Your task to perform on an android device: Add "macbook air" to the cart on ebay.com, then select checkout. Image 0: 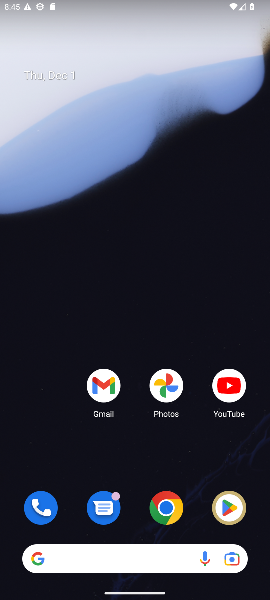
Step 0: click (162, 505)
Your task to perform on an android device: Add "macbook air" to the cart on ebay.com, then select checkout. Image 1: 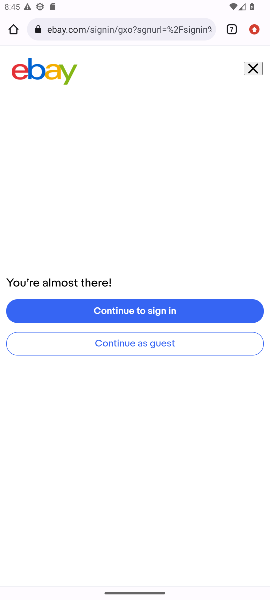
Step 1: click (251, 72)
Your task to perform on an android device: Add "macbook air" to the cart on ebay.com, then select checkout. Image 2: 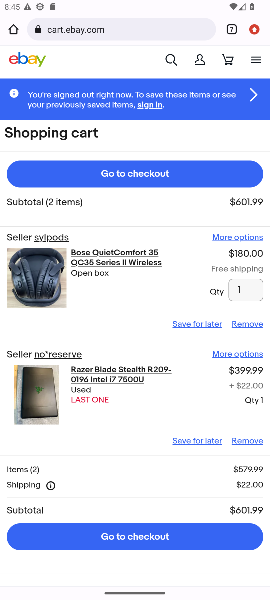
Step 2: click (168, 61)
Your task to perform on an android device: Add "macbook air" to the cart on ebay.com, then select checkout. Image 3: 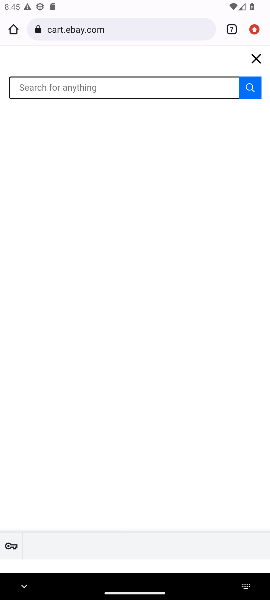
Step 3: type "macbook air"
Your task to perform on an android device: Add "macbook air" to the cart on ebay.com, then select checkout. Image 4: 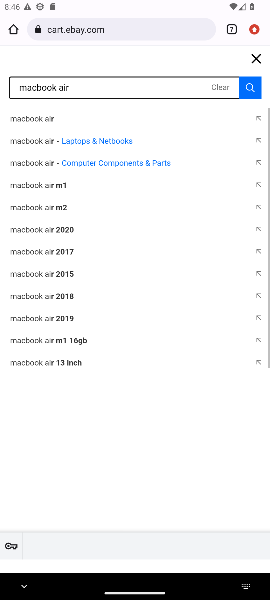
Step 4: click (246, 89)
Your task to perform on an android device: Add "macbook air" to the cart on ebay.com, then select checkout. Image 5: 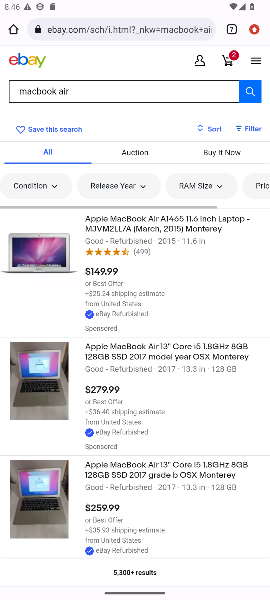
Step 5: click (101, 232)
Your task to perform on an android device: Add "macbook air" to the cart on ebay.com, then select checkout. Image 6: 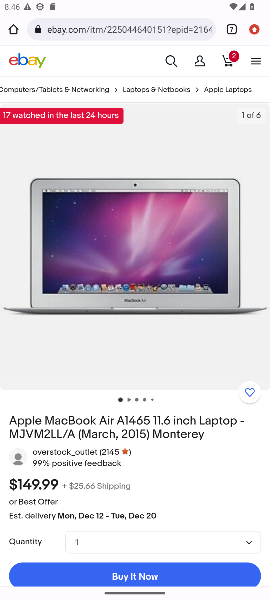
Step 6: drag from (141, 527) to (169, 280)
Your task to perform on an android device: Add "macbook air" to the cart on ebay.com, then select checkout. Image 7: 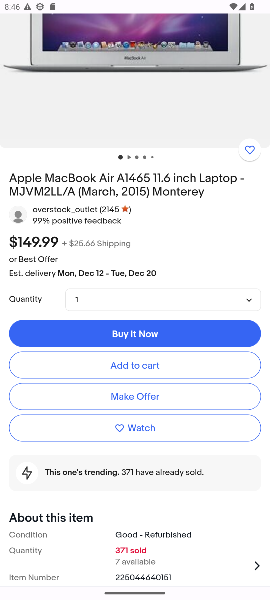
Step 7: click (139, 368)
Your task to perform on an android device: Add "macbook air" to the cart on ebay.com, then select checkout. Image 8: 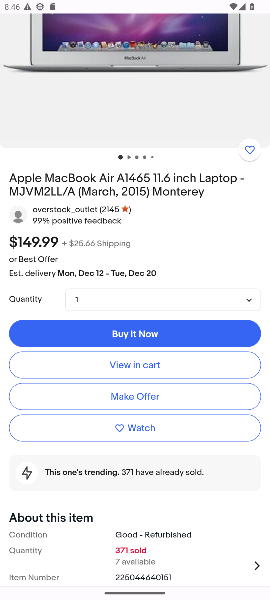
Step 8: click (139, 368)
Your task to perform on an android device: Add "macbook air" to the cart on ebay.com, then select checkout. Image 9: 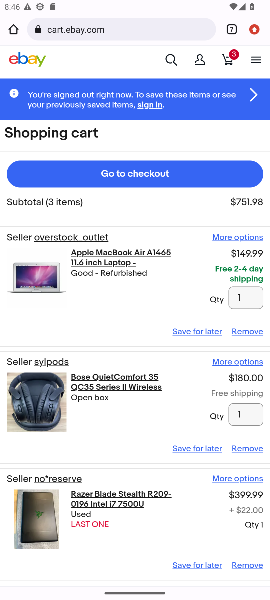
Step 9: click (134, 173)
Your task to perform on an android device: Add "macbook air" to the cart on ebay.com, then select checkout. Image 10: 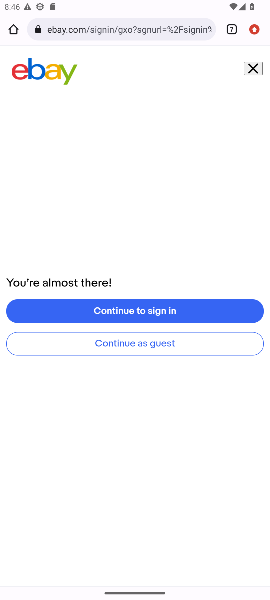
Step 10: task complete